Your task to perform on an android device: Open Android settings Image 0: 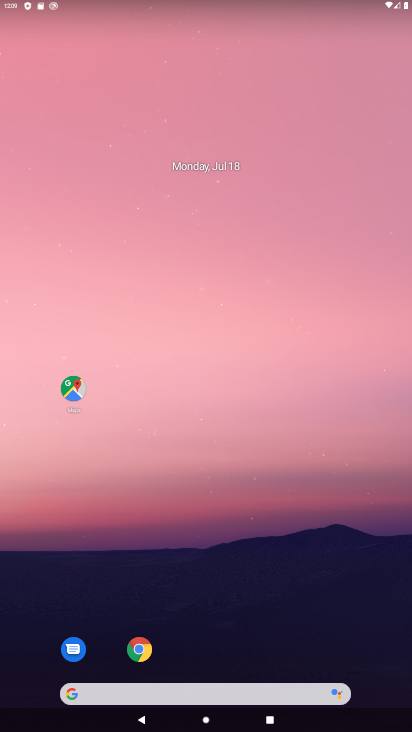
Step 0: drag from (182, 502) to (209, 29)
Your task to perform on an android device: Open Android settings Image 1: 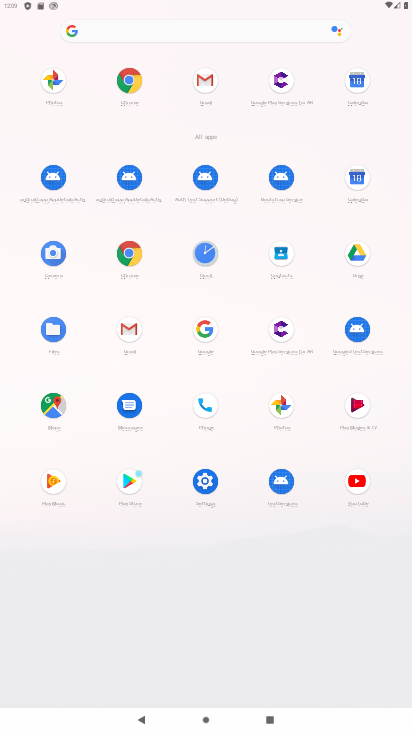
Step 1: click (209, 489)
Your task to perform on an android device: Open Android settings Image 2: 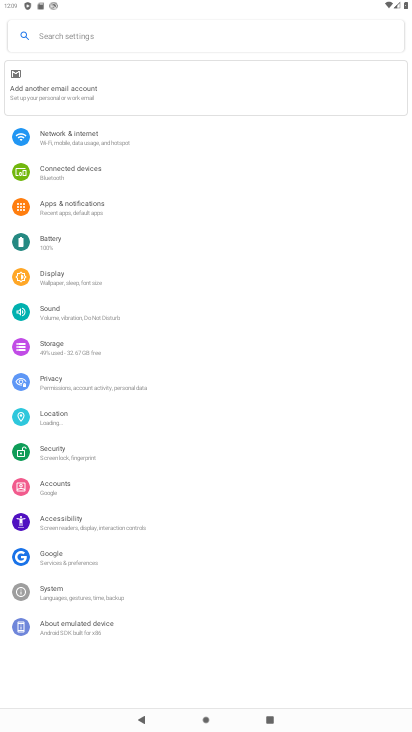
Step 2: click (84, 633)
Your task to perform on an android device: Open Android settings Image 3: 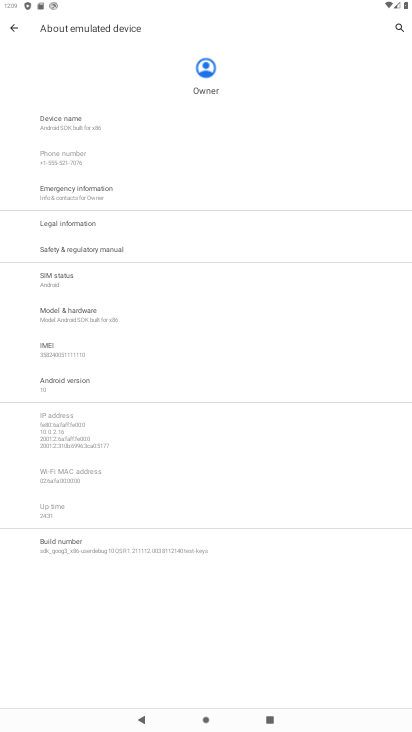
Step 3: click (86, 383)
Your task to perform on an android device: Open Android settings Image 4: 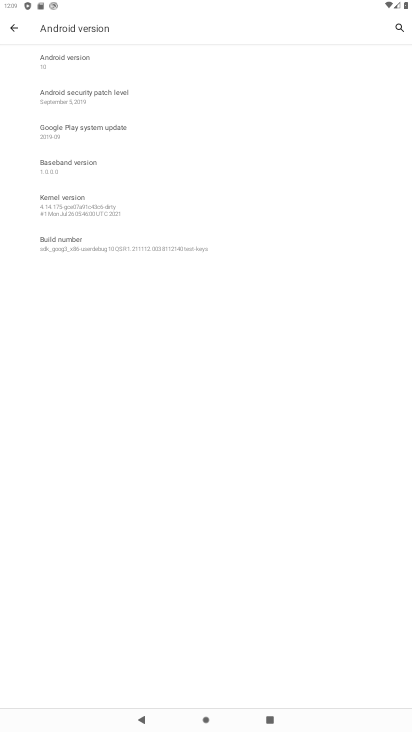
Step 4: task complete